Your task to perform on an android device: Search for Italian restaurants on Maps Image 0: 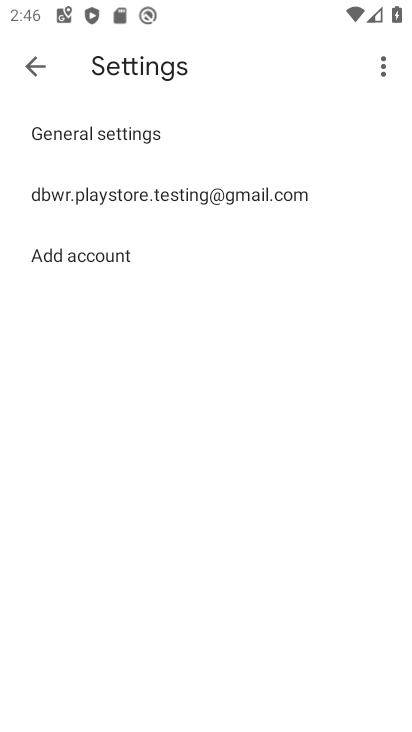
Step 0: press home button
Your task to perform on an android device: Search for Italian restaurants on Maps Image 1: 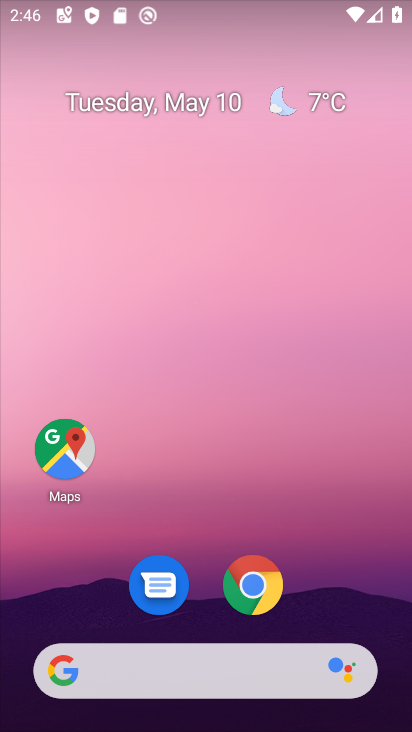
Step 1: click (70, 438)
Your task to perform on an android device: Search for Italian restaurants on Maps Image 2: 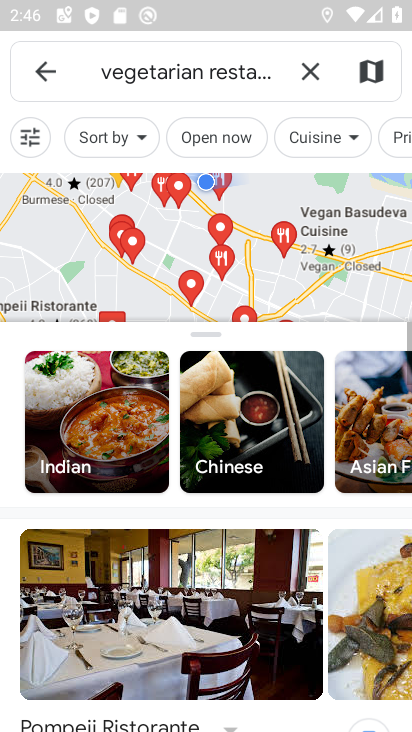
Step 2: click (310, 70)
Your task to perform on an android device: Search for Italian restaurants on Maps Image 3: 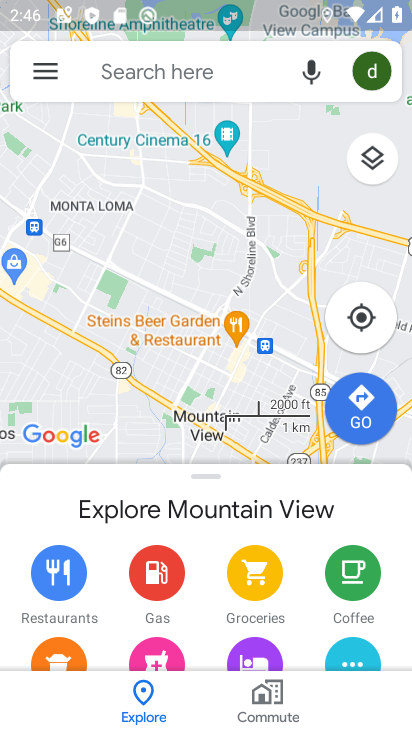
Step 3: click (220, 71)
Your task to perform on an android device: Search for Italian restaurants on Maps Image 4: 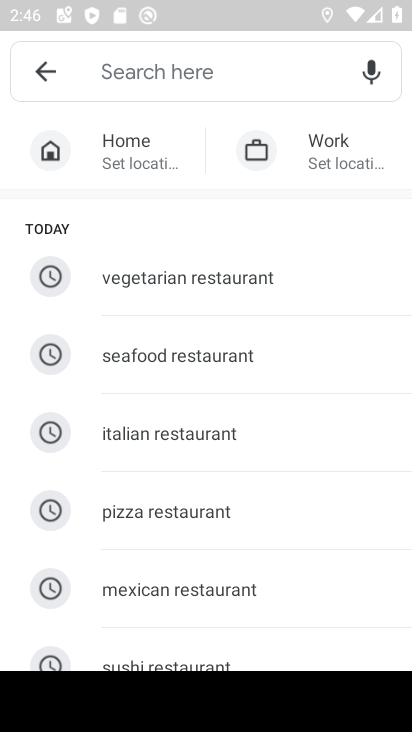
Step 4: click (167, 424)
Your task to perform on an android device: Search for Italian restaurants on Maps Image 5: 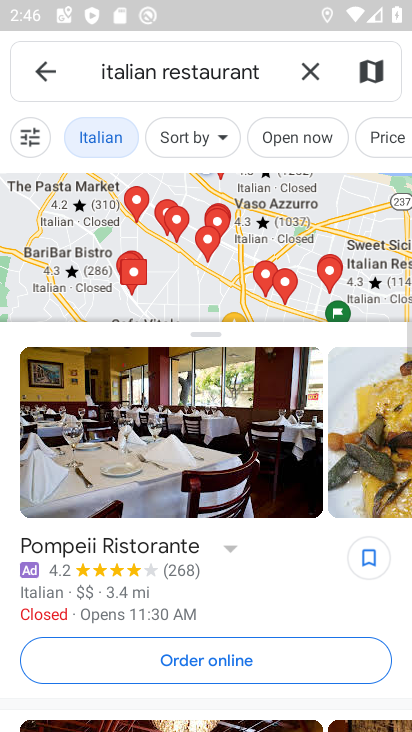
Step 5: task complete